Your task to perform on an android device: turn off picture-in-picture Image 0: 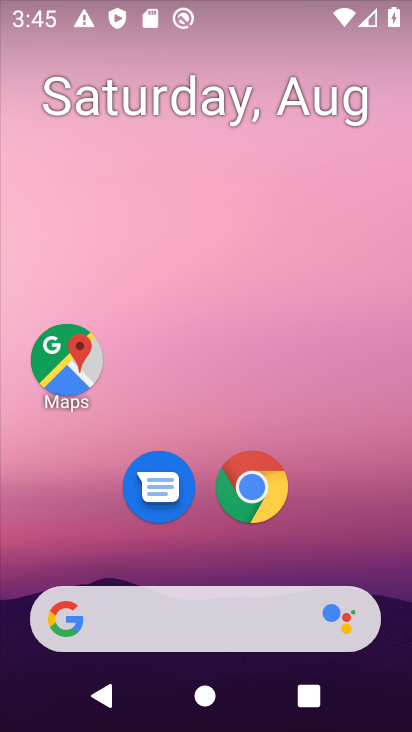
Step 0: click (251, 491)
Your task to perform on an android device: turn off picture-in-picture Image 1: 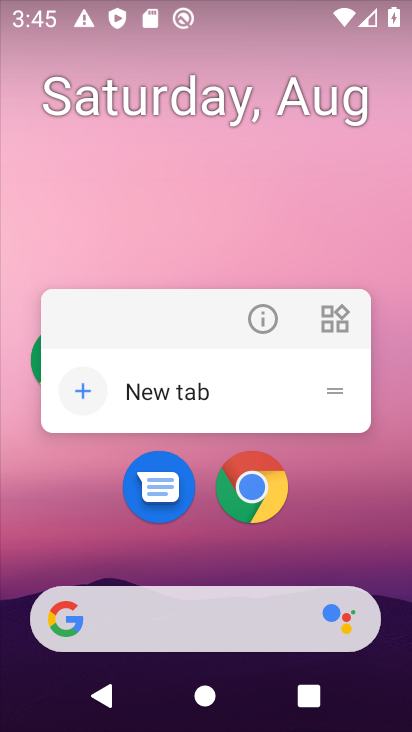
Step 1: click (279, 318)
Your task to perform on an android device: turn off picture-in-picture Image 2: 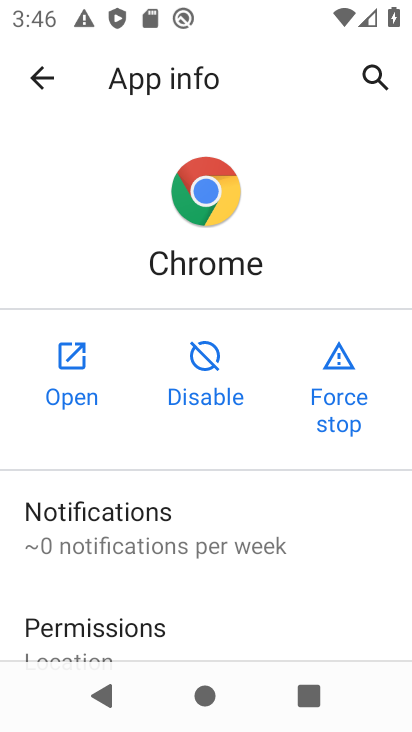
Step 2: drag from (200, 618) to (280, 1)
Your task to perform on an android device: turn off picture-in-picture Image 3: 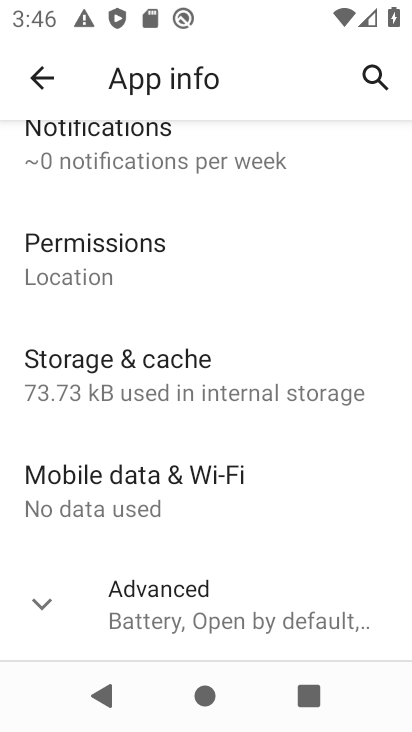
Step 3: drag from (315, 624) to (282, 34)
Your task to perform on an android device: turn off picture-in-picture Image 4: 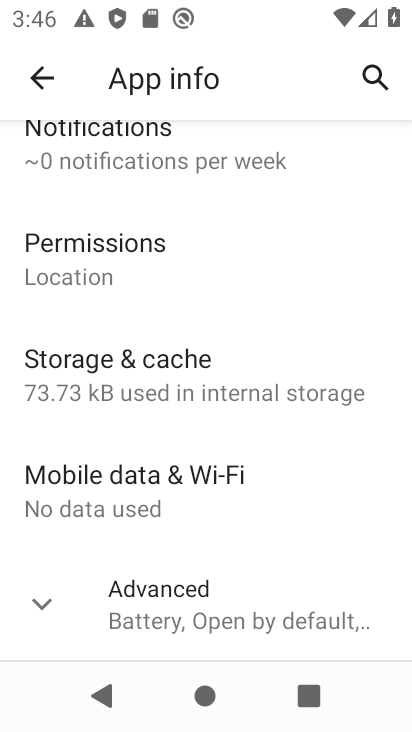
Step 4: click (149, 599)
Your task to perform on an android device: turn off picture-in-picture Image 5: 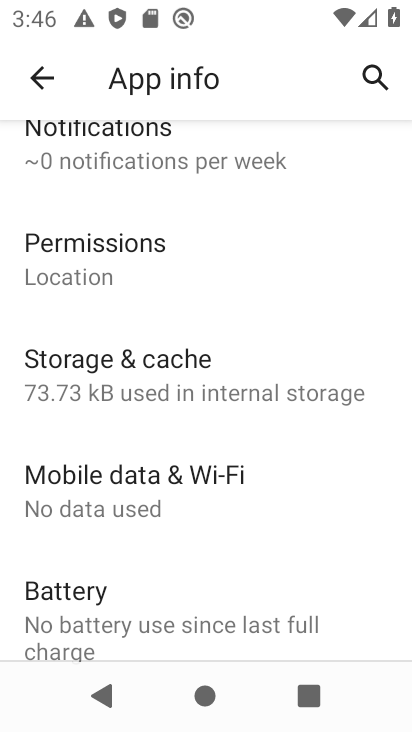
Step 5: drag from (238, 635) to (338, 16)
Your task to perform on an android device: turn off picture-in-picture Image 6: 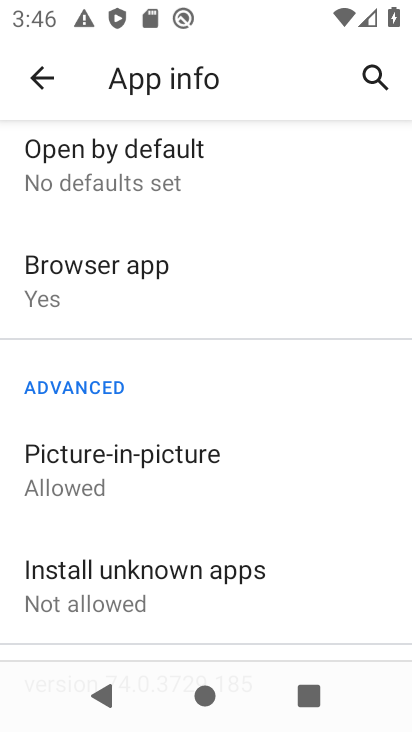
Step 6: click (157, 482)
Your task to perform on an android device: turn off picture-in-picture Image 7: 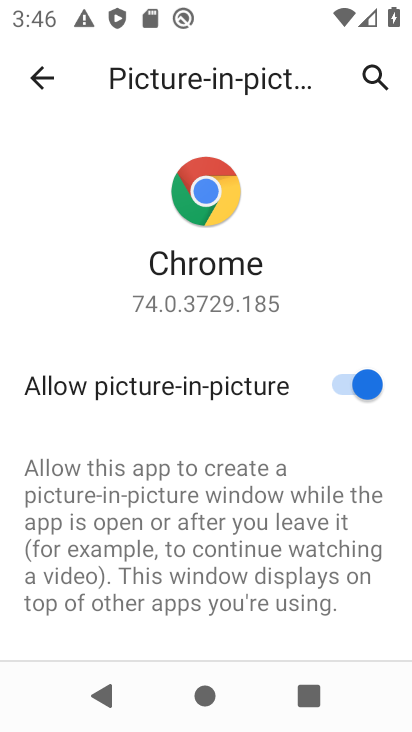
Step 7: click (370, 383)
Your task to perform on an android device: turn off picture-in-picture Image 8: 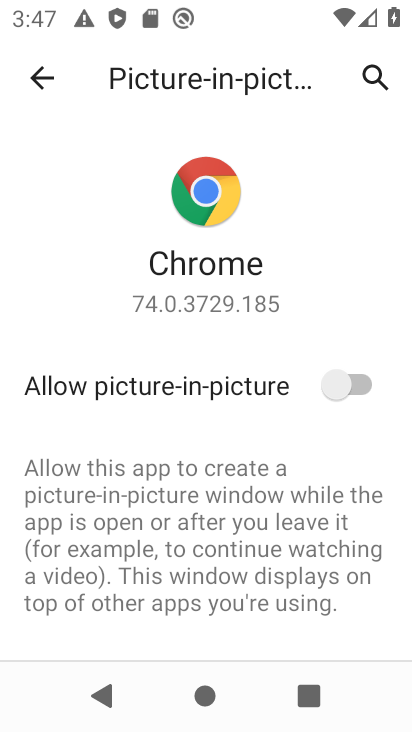
Step 8: task complete